Your task to perform on an android device: What is the news today? Image 0: 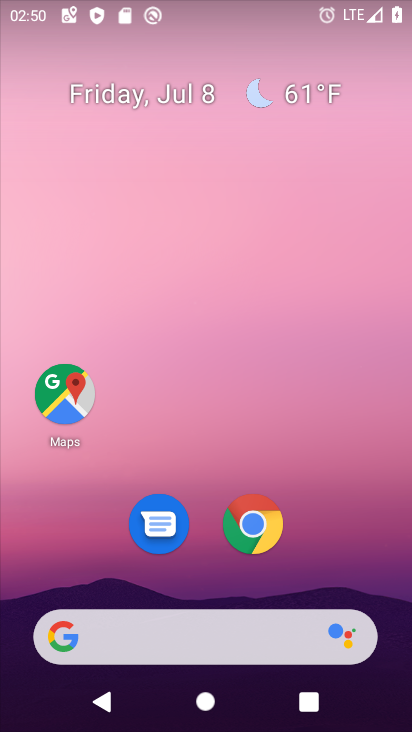
Step 0: click (238, 654)
Your task to perform on an android device: What is the news today? Image 1: 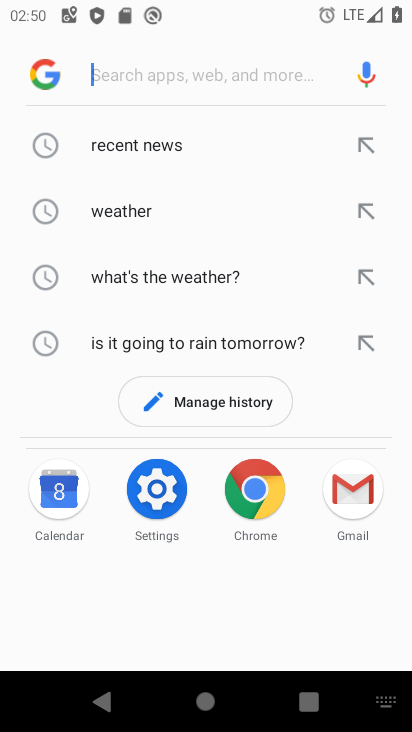
Step 1: click (148, 143)
Your task to perform on an android device: What is the news today? Image 2: 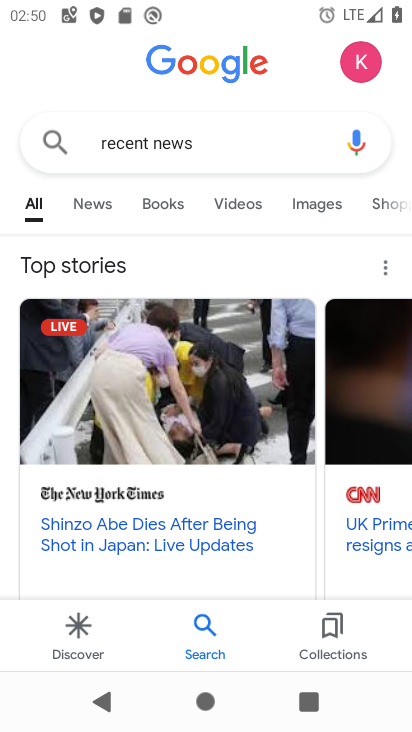
Step 2: click (92, 200)
Your task to perform on an android device: What is the news today? Image 3: 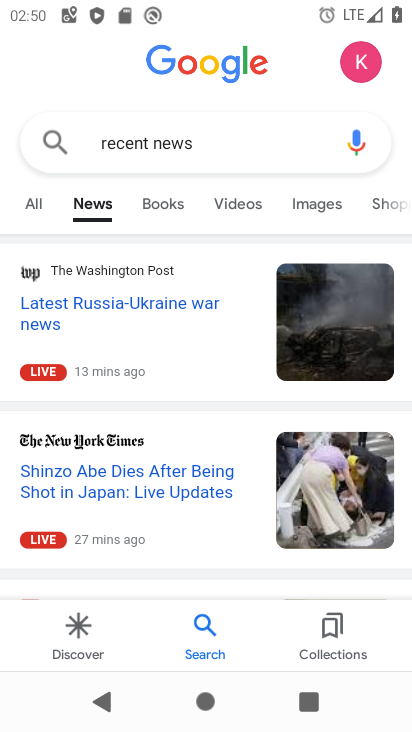
Step 3: task complete